Your task to perform on an android device: Go to privacy settings Image 0: 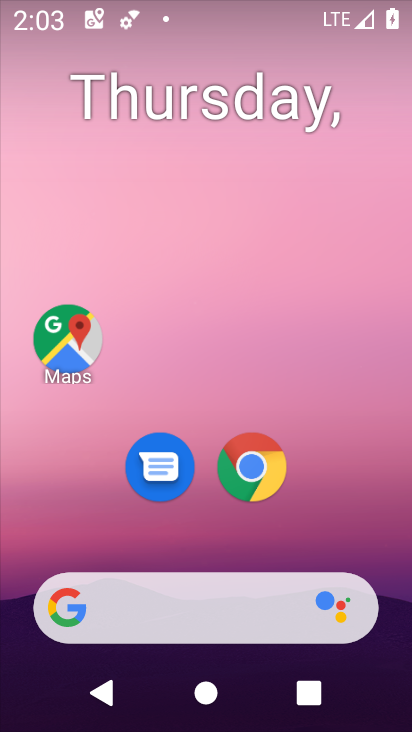
Step 0: drag from (222, 556) to (140, 3)
Your task to perform on an android device: Go to privacy settings Image 1: 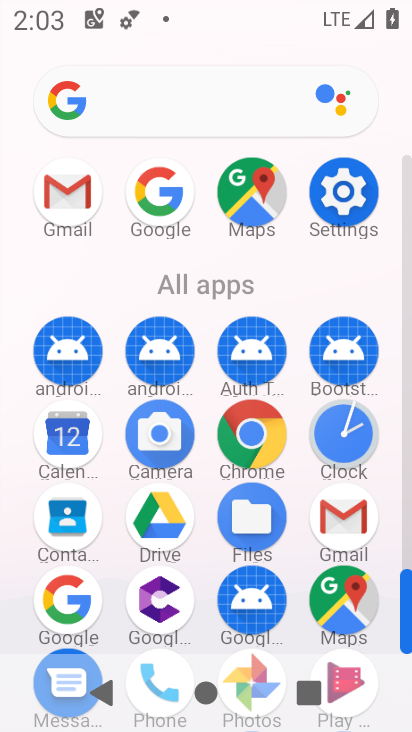
Step 1: click (361, 196)
Your task to perform on an android device: Go to privacy settings Image 2: 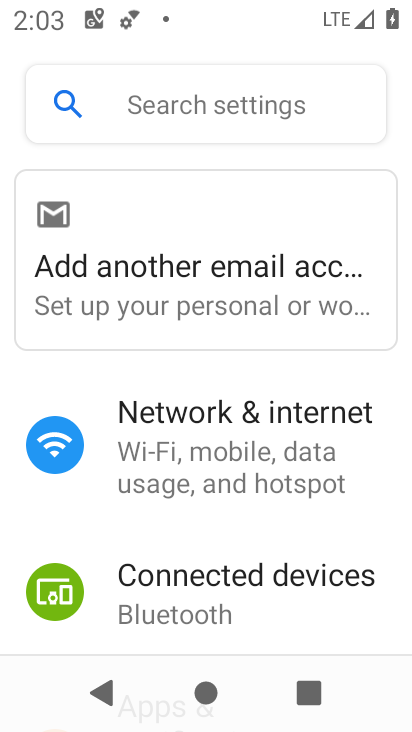
Step 2: drag from (273, 473) to (231, 0)
Your task to perform on an android device: Go to privacy settings Image 3: 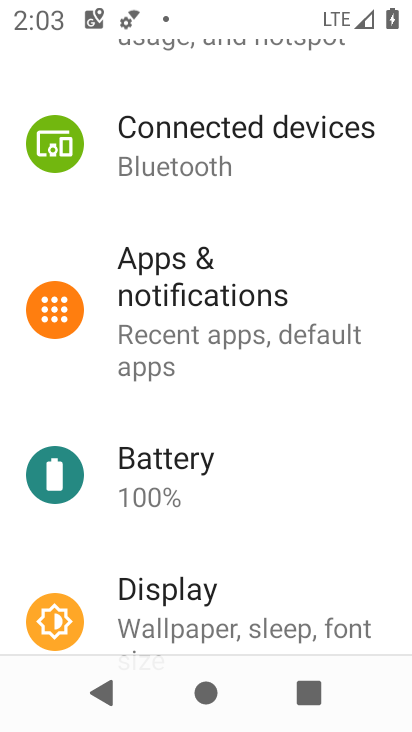
Step 3: drag from (248, 509) to (184, 61)
Your task to perform on an android device: Go to privacy settings Image 4: 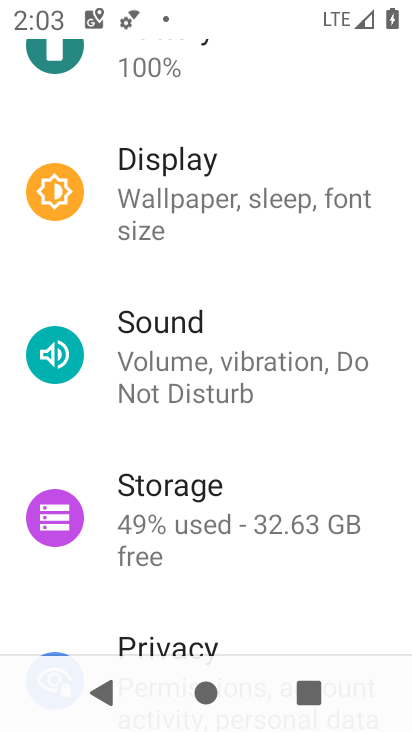
Step 4: drag from (216, 537) to (206, 339)
Your task to perform on an android device: Go to privacy settings Image 5: 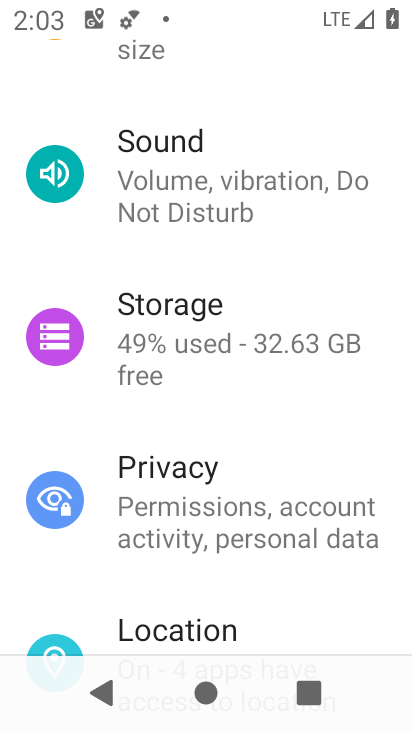
Step 5: click (193, 449)
Your task to perform on an android device: Go to privacy settings Image 6: 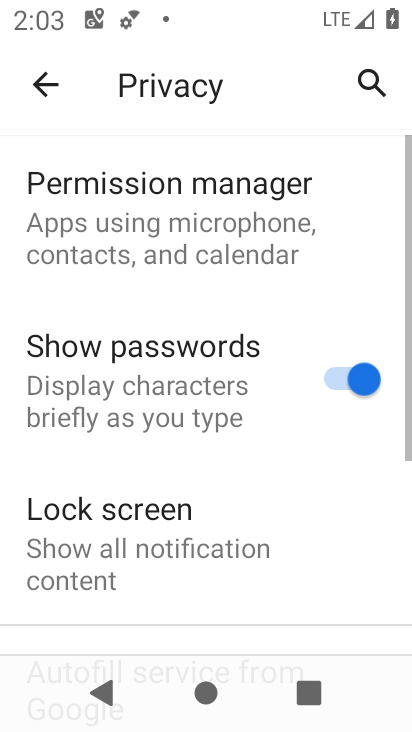
Step 6: task complete